Your task to perform on an android device: open wifi settings Image 0: 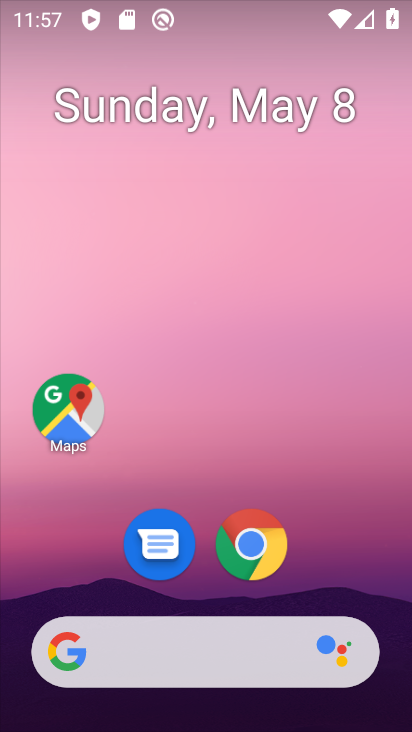
Step 0: drag from (363, 560) to (295, 140)
Your task to perform on an android device: open wifi settings Image 1: 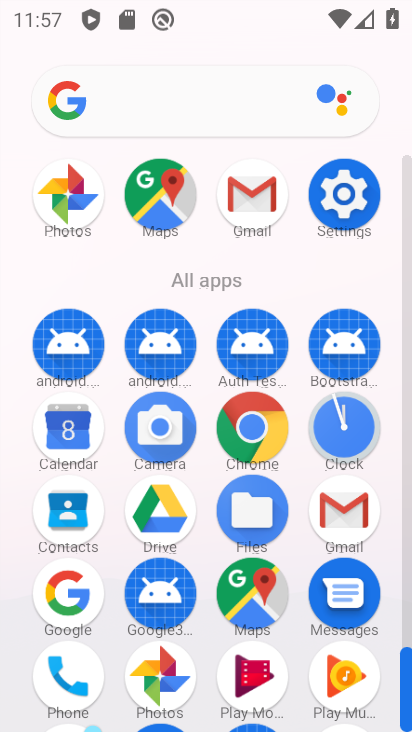
Step 1: click (333, 179)
Your task to perform on an android device: open wifi settings Image 2: 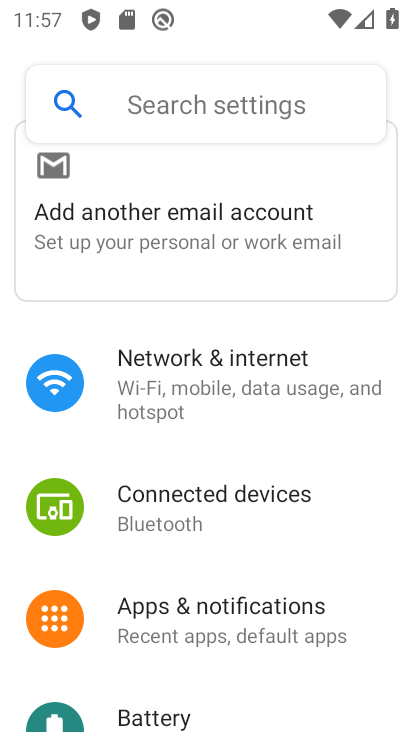
Step 2: click (258, 363)
Your task to perform on an android device: open wifi settings Image 3: 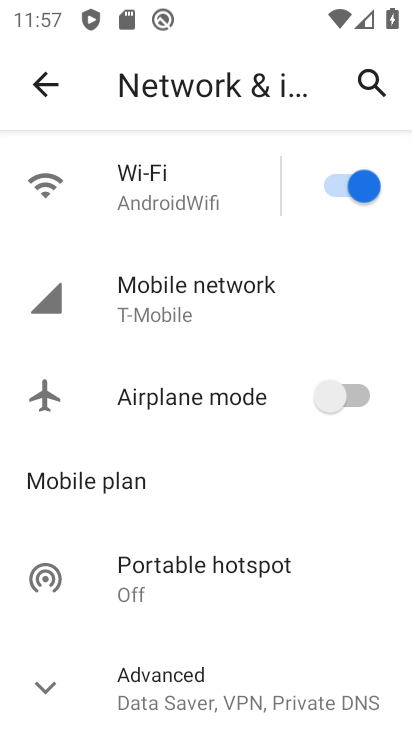
Step 3: click (160, 164)
Your task to perform on an android device: open wifi settings Image 4: 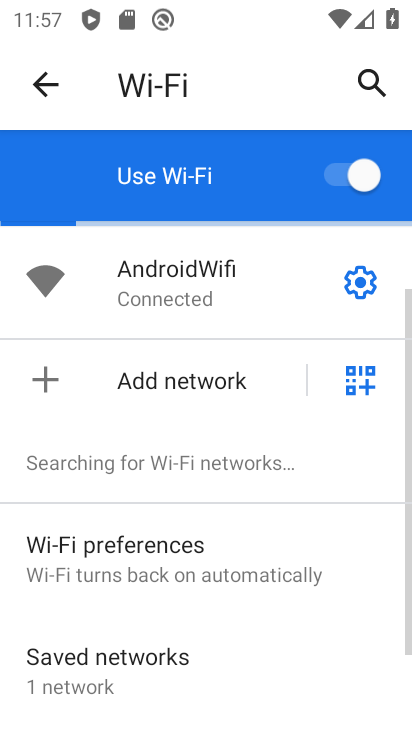
Step 4: task complete